Your task to perform on an android device: Do I have any events tomorrow? Image 0: 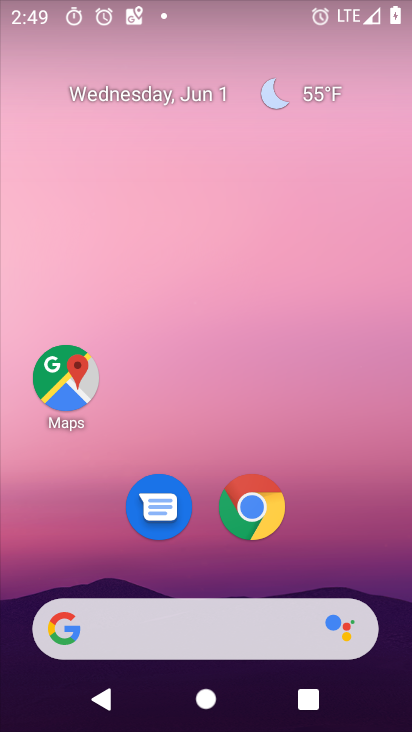
Step 0: drag from (353, 590) to (325, 44)
Your task to perform on an android device: Do I have any events tomorrow? Image 1: 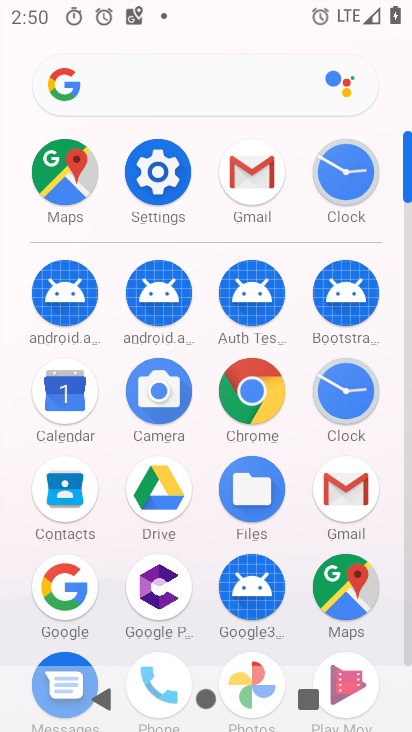
Step 1: click (63, 402)
Your task to perform on an android device: Do I have any events tomorrow? Image 2: 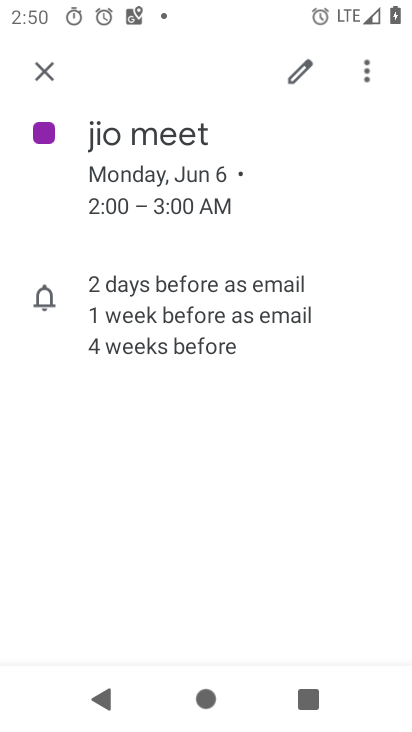
Step 2: click (49, 74)
Your task to perform on an android device: Do I have any events tomorrow? Image 3: 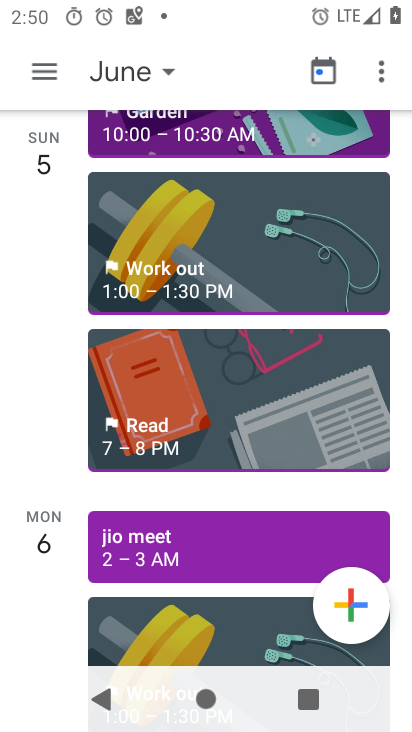
Step 3: drag from (195, 227) to (176, 591)
Your task to perform on an android device: Do I have any events tomorrow? Image 4: 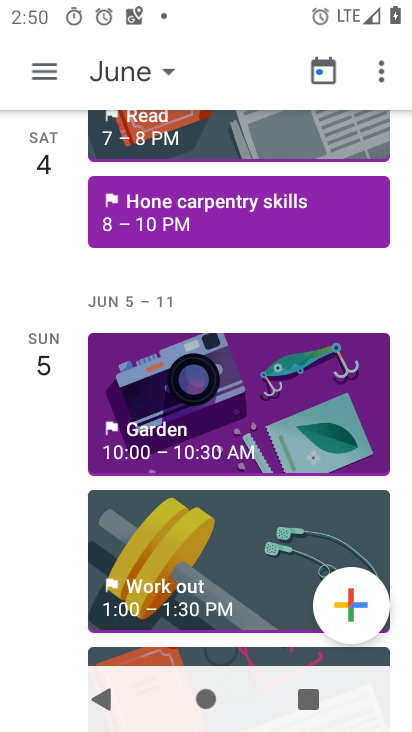
Step 4: drag from (170, 225) to (149, 619)
Your task to perform on an android device: Do I have any events tomorrow? Image 5: 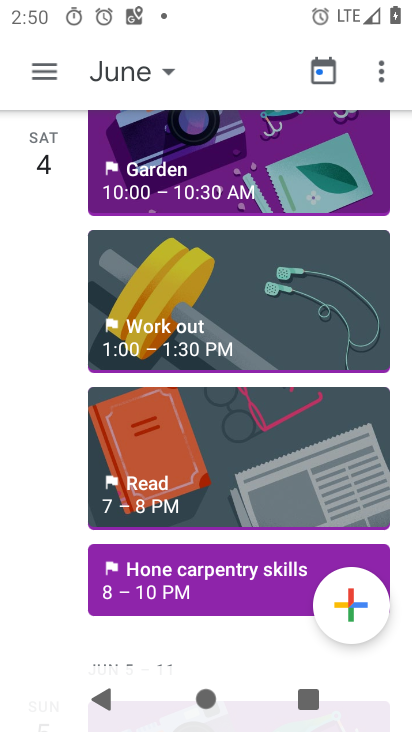
Step 5: drag from (138, 228) to (151, 588)
Your task to perform on an android device: Do I have any events tomorrow? Image 6: 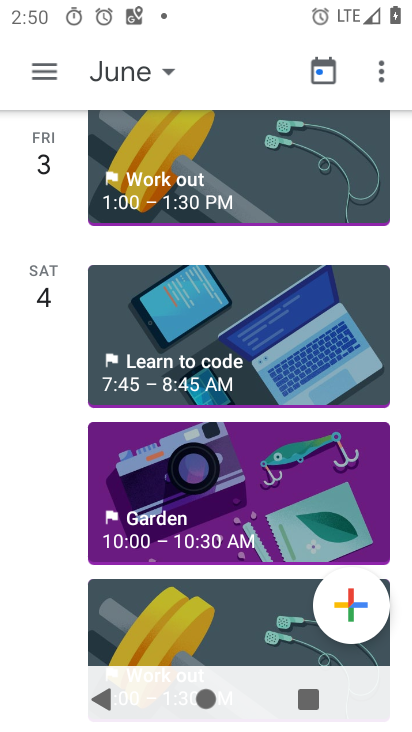
Step 6: drag from (193, 302) to (180, 534)
Your task to perform on an android device: Do I have any events tomorrow? Image 7: 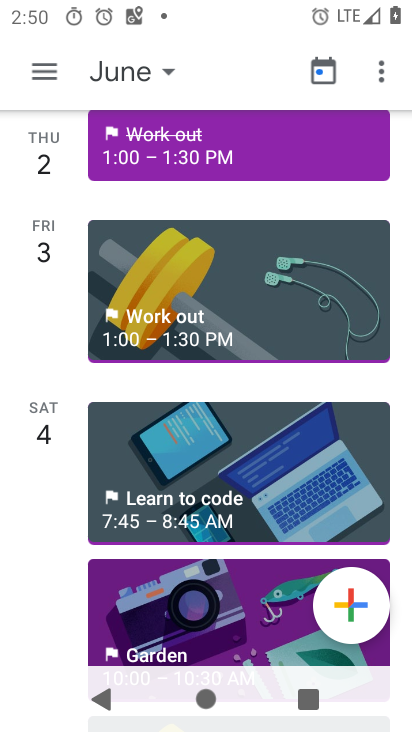
Step 7: drag from (174, 263) to (172, 456)
Your task to perform on an android device: Do I have any events tomorrow? Image 8: 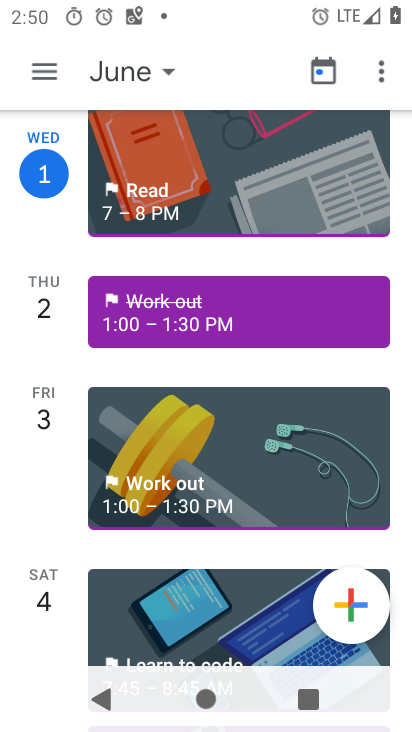
Step 8: click (177, 330)
Your task to perform on an android device: Do I have any events tomorrow? Image 9: 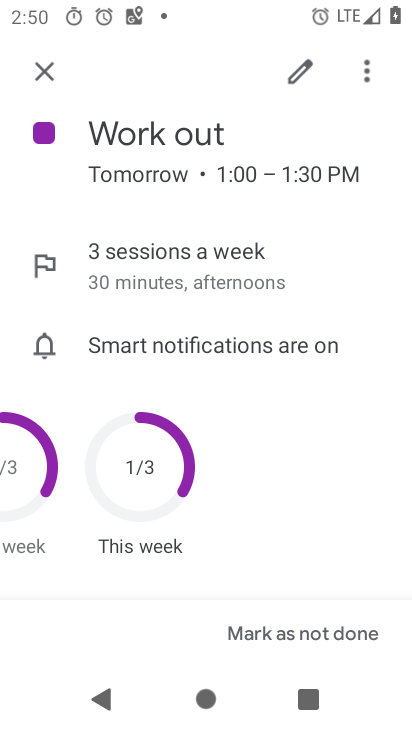
Step 9: task complete